Your task to perform on an android device: open app "Firefox Browser" (install if not already installed), go to login, and select forgot password Image 0: 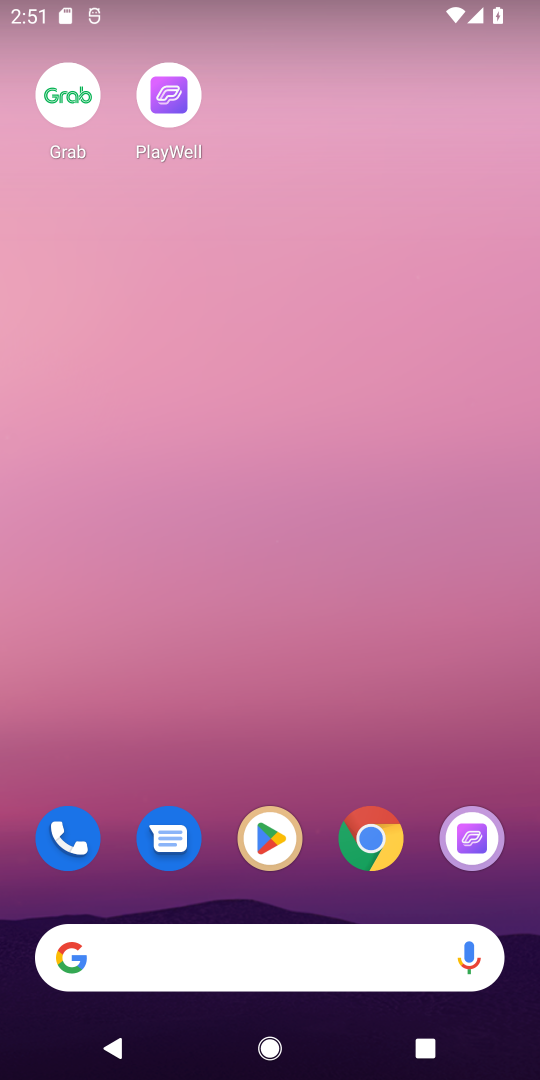
Step 0: click (259, 831)
Your task to perform on an android device: open app "Firefox Browser" (install if not already installed), go to login, and select forgot password Image 1: 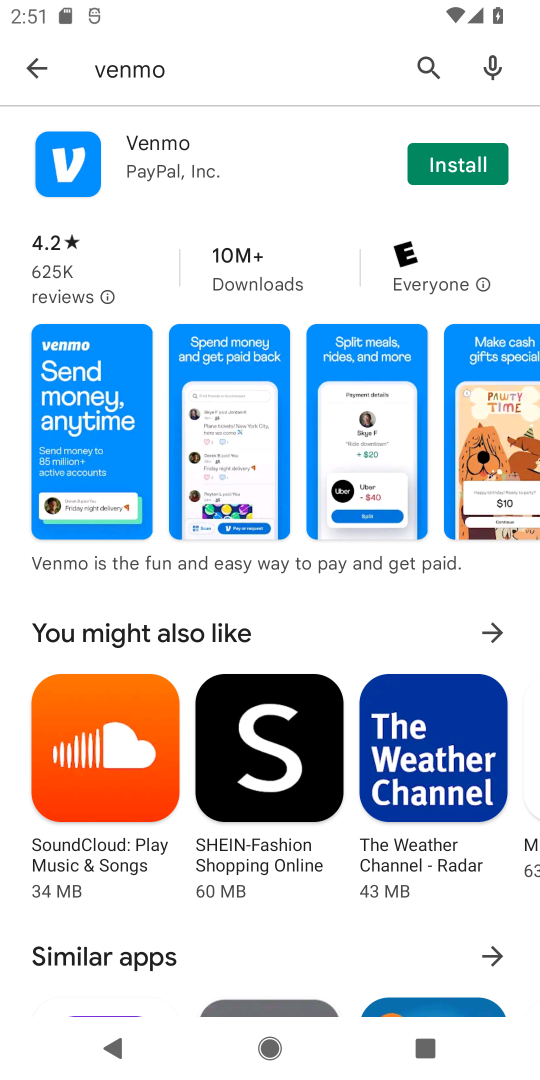
Step 1: click (39, 62)
Your task to perform on an android device: open app "Firefox Browser" (install if not already installed), go to login, and select forgot password Image 2: 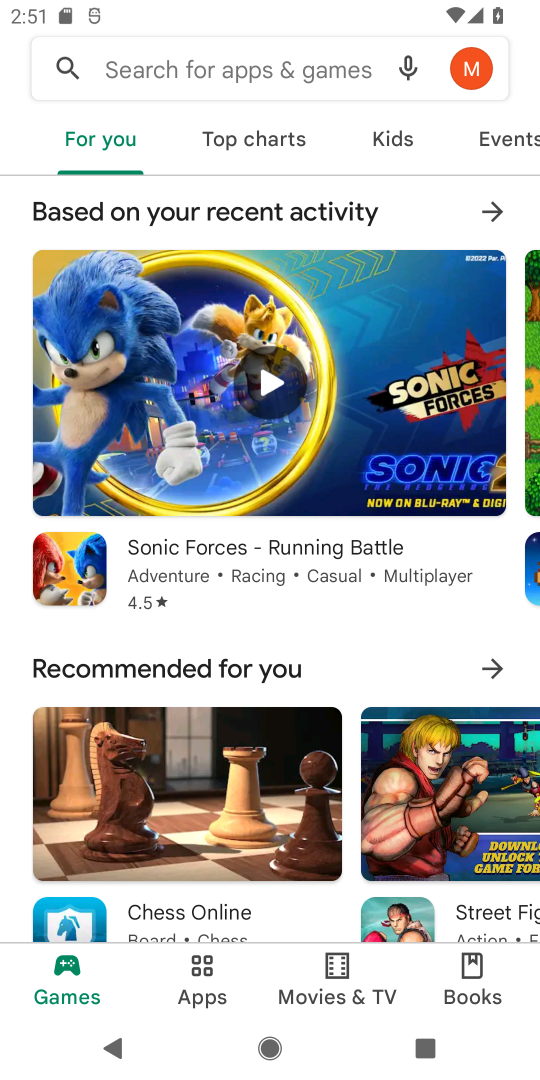
Step 2: click (215, 61)
Your task to perform on an android device: open app "Firefox Browser" (install if not already installed), go to login, and select forgot password Image 3: 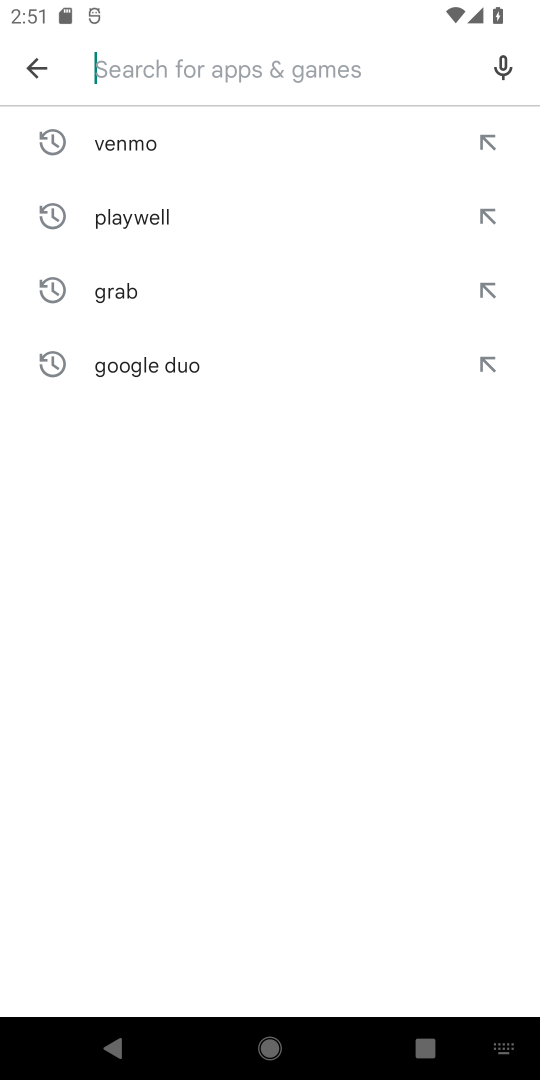
Step 3: type "Firefox Browser"
Your task to perform on an android device: open app "Firefox Browser" (install if not already installed), go to login, and select forgot password Image 4: 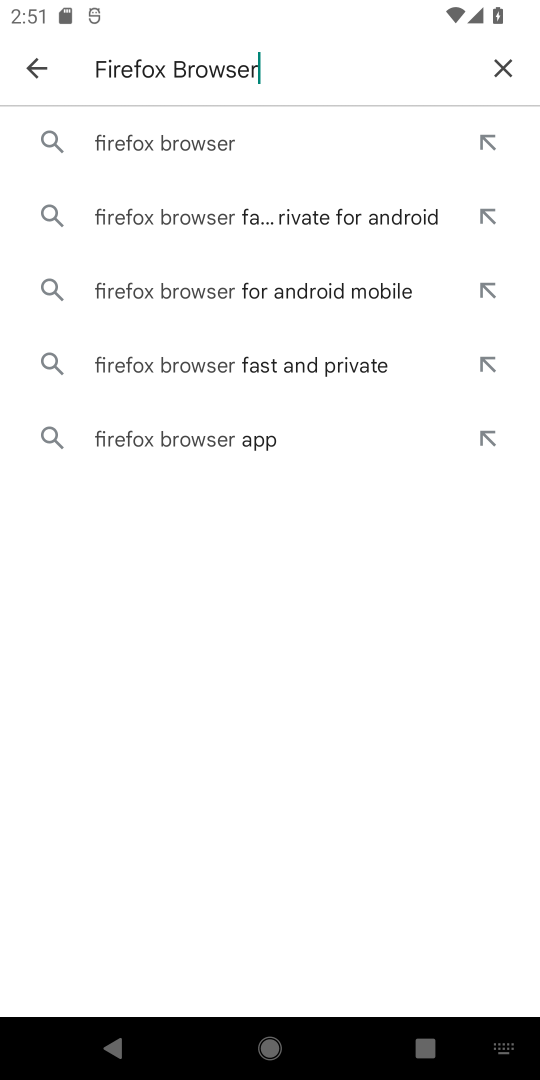
Step 4: click (127, 127)
Your task to perform on an android device: open app "Firefox Browser" (install if not already installed), go to login, and select forgot password Image 5: 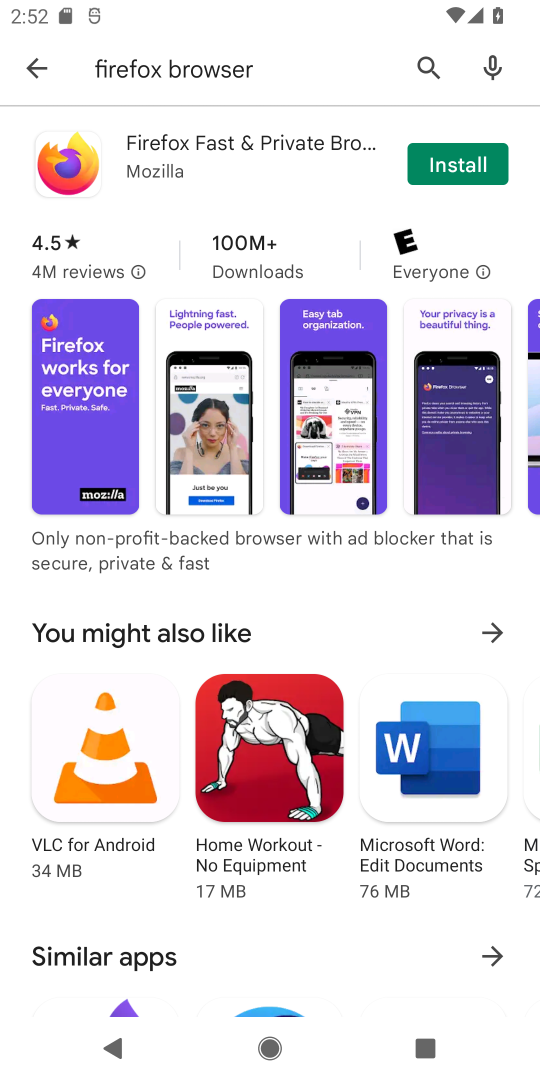
Step 5: click (459, 189)
Your task to perform on an android device: open app "Firefox Browser" (install if not already installed), go to login, and select forgot password Image 6: 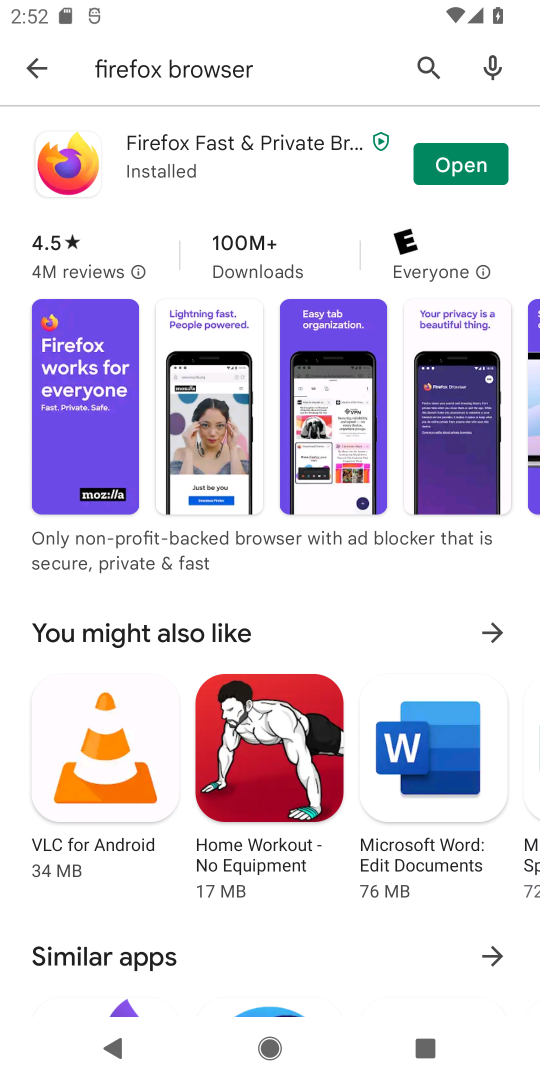
Step 6: click (435, 174)
Your task to perform on an android device: open app "Firefox Browser" (install if not already installed), go to login, and select forgot password Image 7: 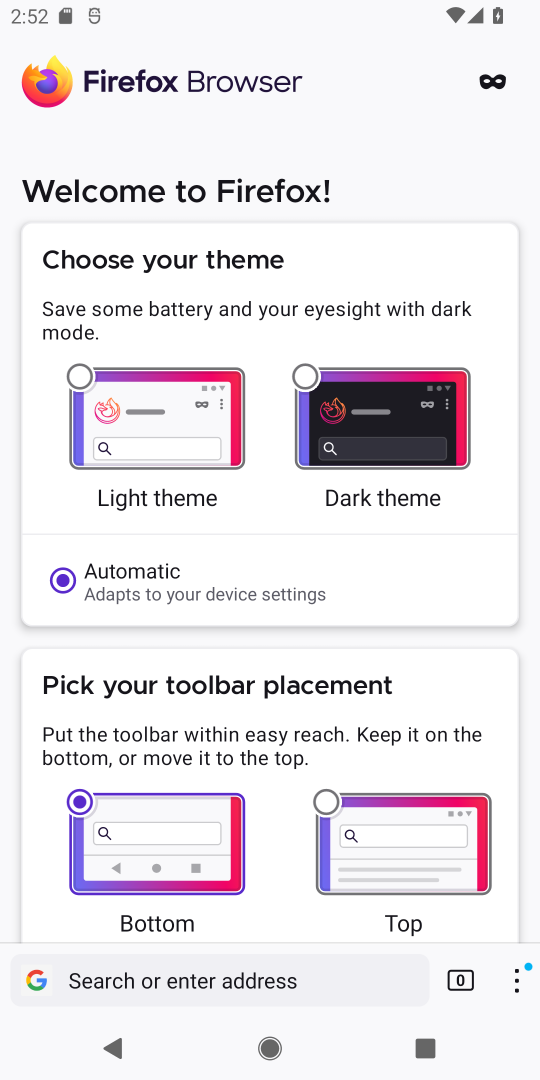
Step 7: task complete